Your task to perform on an android device: Go to calendar. Show me events next week Image 0: 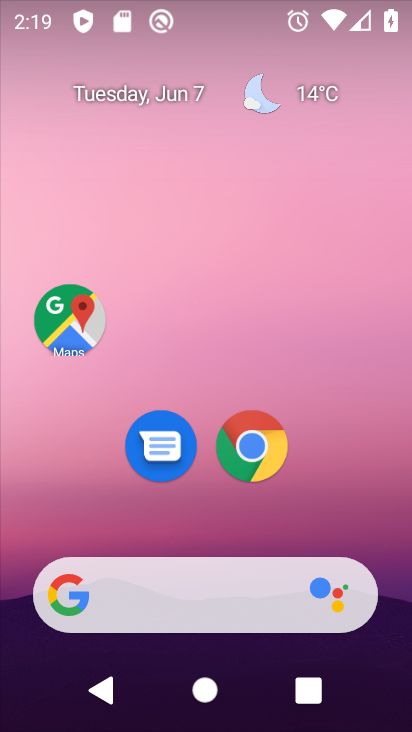
Step 0: drag from (399, 598) to (329, 0)
Your task to perform on an android device: Go to calendar. Show me events next week Image 1: 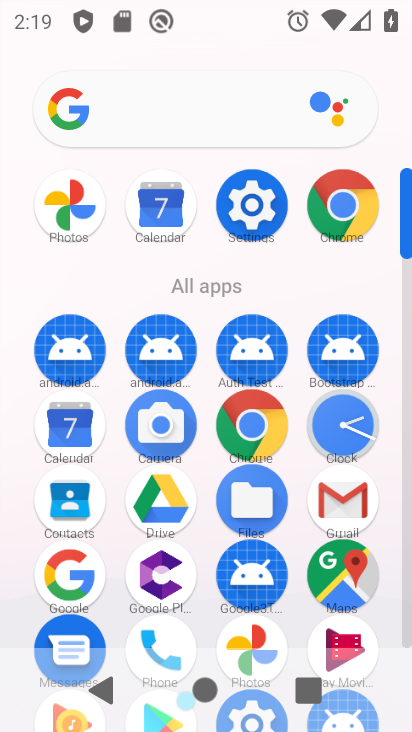
Step 1: click (406, 626)
Your task to perform on an android device: Go to calendar. Show me events next week Image 2: 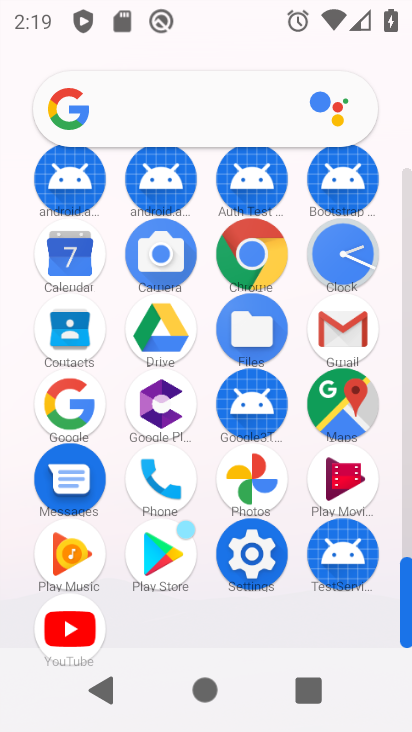
Step 2: click (68, 253)
Your task to perform on an android device: Go to calendar. Show me events next week Image 3: 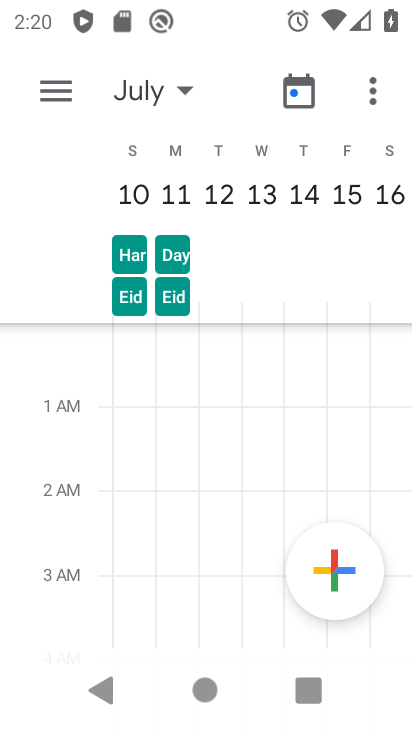
Step 3: click (60, 76)
Your task to perform on an android device: Go to calendar. Show me events next week Image 4: 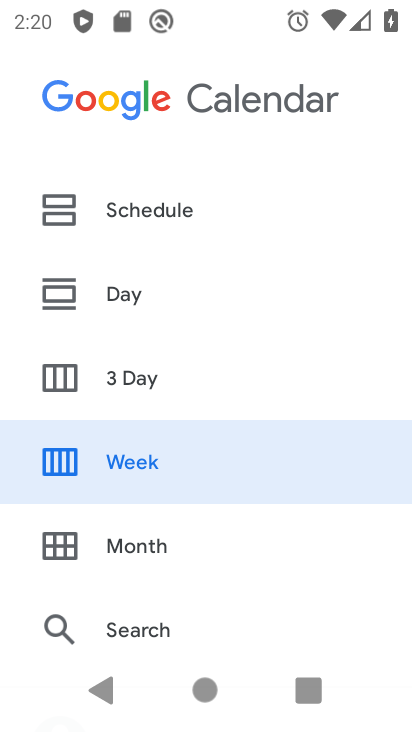
Step 4: click (168, 456)
Your task to perform on an android device: Go to calendar. Show me events next week Image 5: 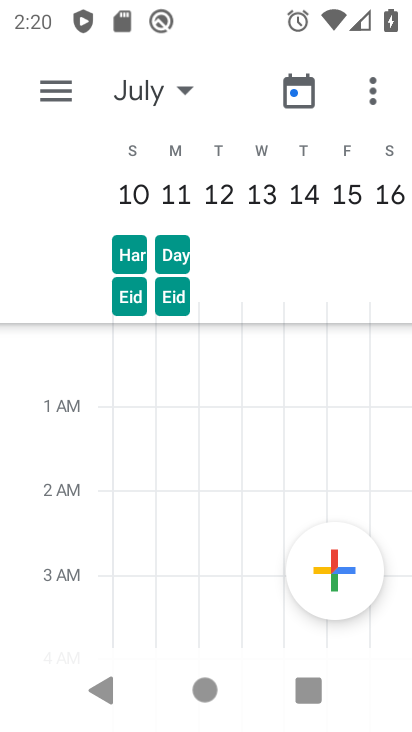
Step 5: click (183, 85)
Your task to perform on an android device: Go to calendar. Show me events next week Image 6: 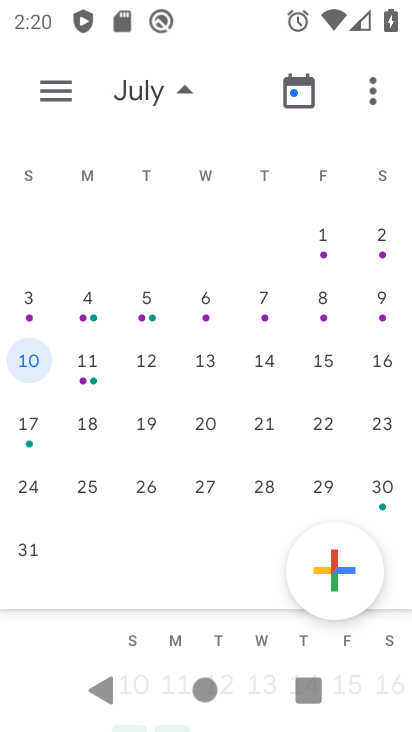
Step 6: drag from (93, 484) to (346, 408)
Your task to perform on an android device: Go to calendar. Show me events next week Image 7: 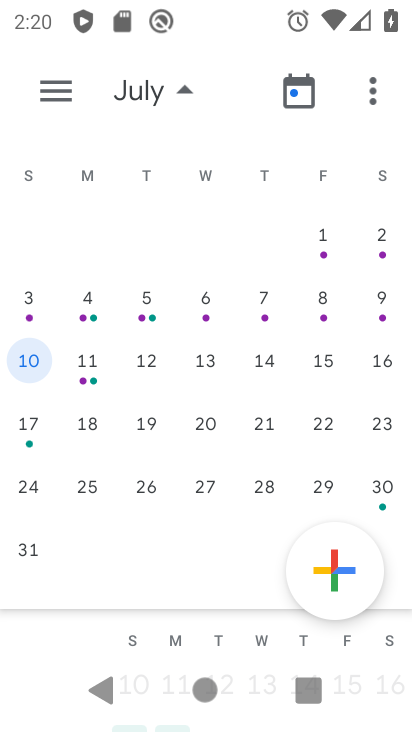
Step 7: drag from (91, 482) to (392, 389)
Your task to perform on an android device: Go to calendar. Show me events next week Image 8: 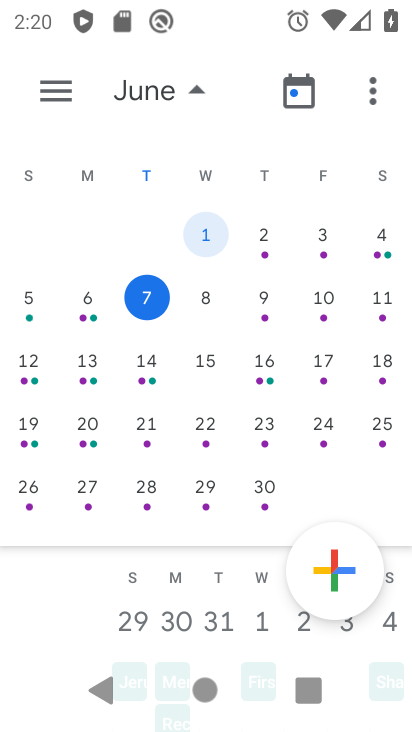
Step 8: click (31, 357)
Your task to perform on an android device: Go to calendar. Show me events next week Image 9: 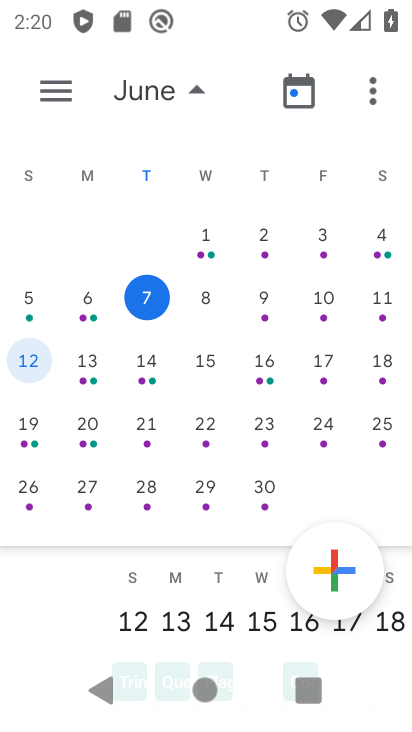
Step 9: task complete